Your task to perform on an android device: Search for vegetarian restaurants on Maps Image 0: 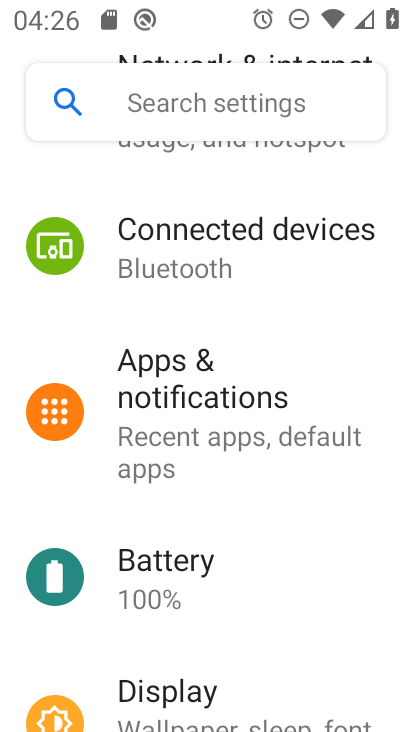
Step 0: press home button
Your task to perform on an android device: Search for vegetarian restaurants on Maps Image 1: 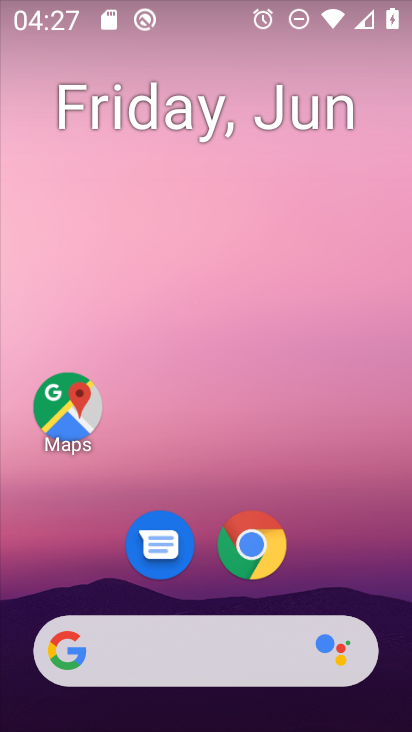
Step 1: click (63, 397)
Your task to perform on an android device: Search for vegetarian restaurants on Maps Image 2: 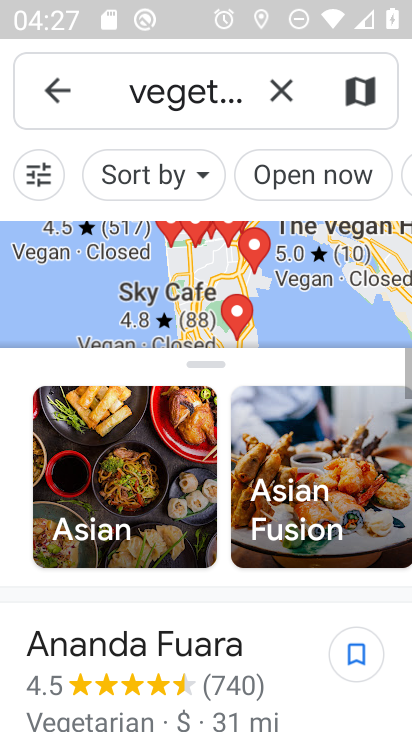
Step 2: task complete